Your task to perform on an android device: Do I have any events this weekend? Image 0: 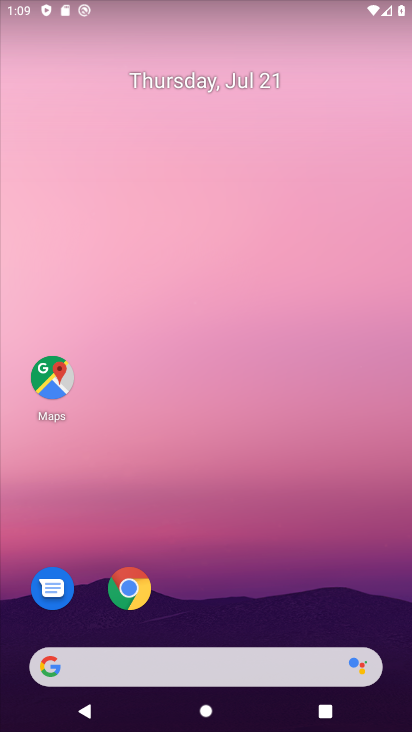
Step 0: drag from (199, 640) to (207, 37)
Your task to perform on an android device: Do I have any events this weekend? Image 1: 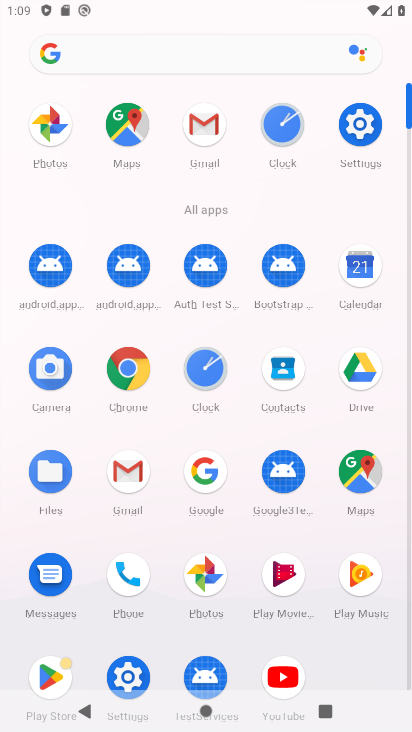
Step 1: click (358, 286)
Your task to perform on an android device: Do I have any events this weekend? Image 2: 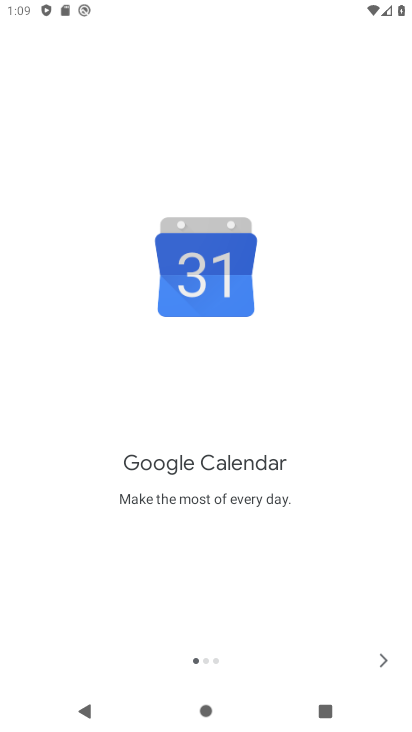
Step 2: click (374, 663)
Your task to perform on an android device: Do I have any events this weekend? Image 3: 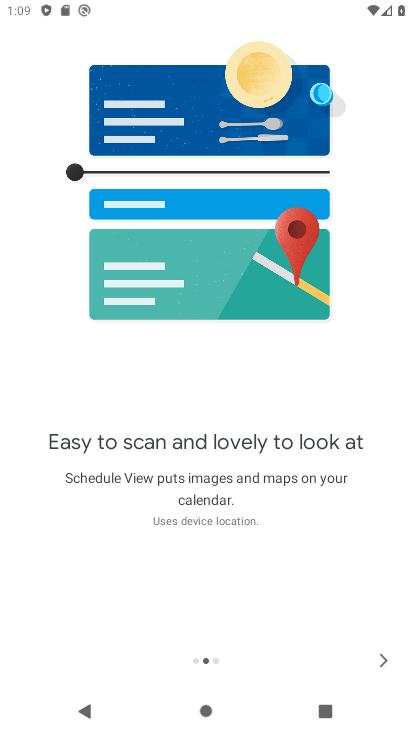
Step 3: click (385, 670)
Your task to perform on an android device: Do I have any events this weekend? Image 4: 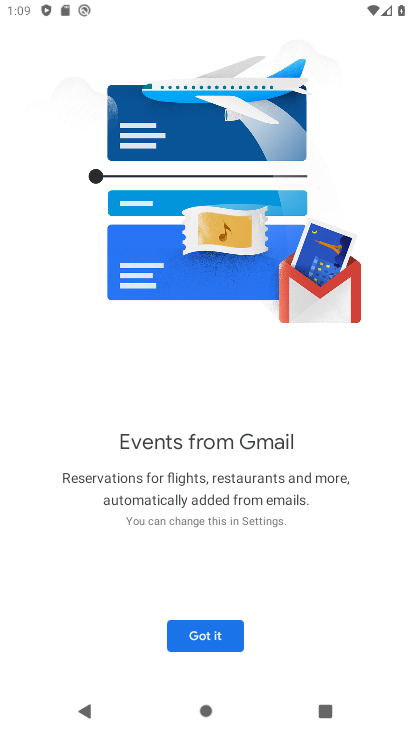
Step 4: click (215, 642)
Your task to perform on an android device: Do I have any events this weekend? Image 5: 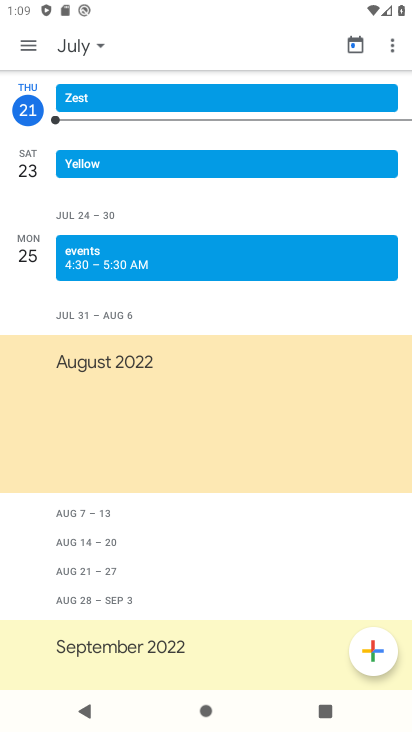
Step 5: click (340, 52)
Your task to perform on an android device: Do I have any events this weekend? Image 6: 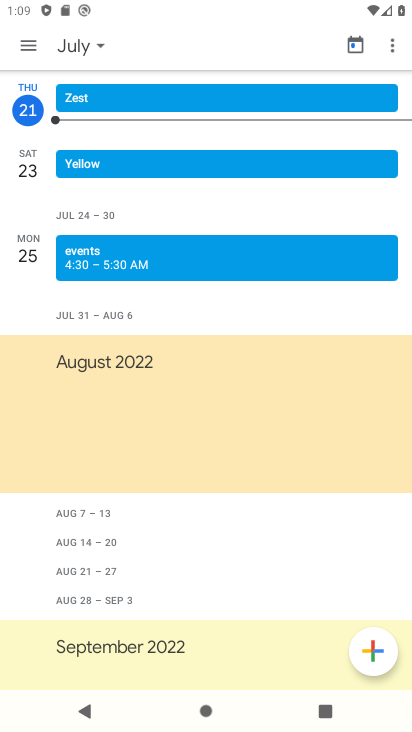
Step 6: click (355, 38)
Your task to perform on an android device: Do I have any events this weekend? Image 7: 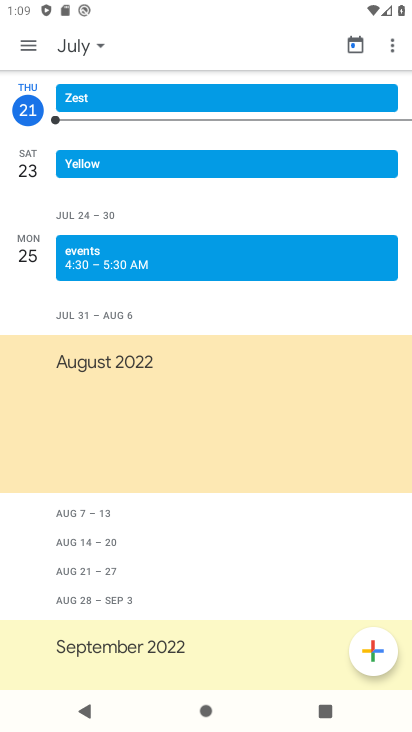
Step 7: click (356, 46)
Your task to perform on an android device: Do I have any events this weekend? Image 8: 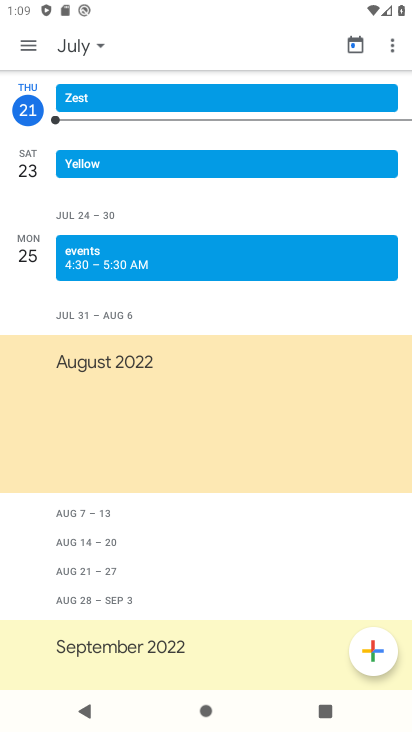
Step 8: click (357, 51)
Your task to perform on an android device: Do I have any events this weekend? Image 9: 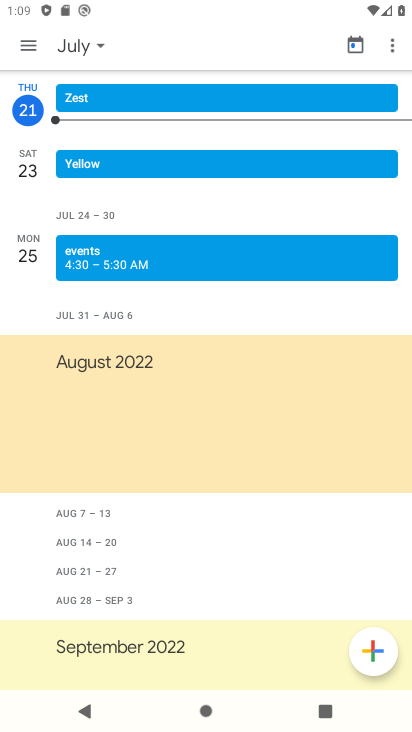
Step 9: click (27, 52)
Your task to perform on an android device: Do I have any events this weekend? Image 10: 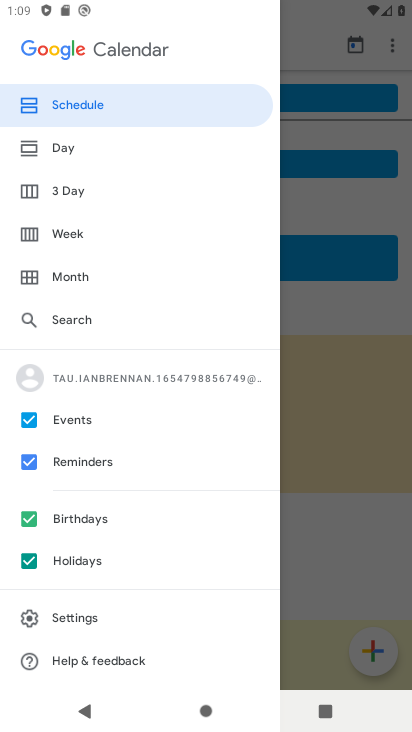
Step 10: click (90, 238)
Your task to perform on an android device: Do I have any events this weekend? Image 11: 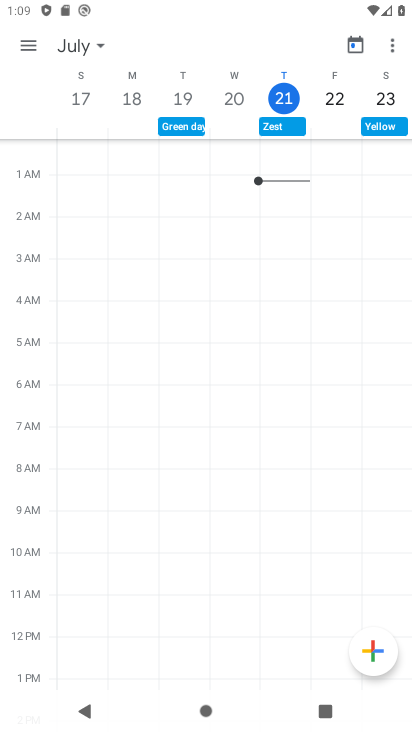
Step 11: task complete